Your task to perform on an android device: move a message to another label in the gmail app Image 0: 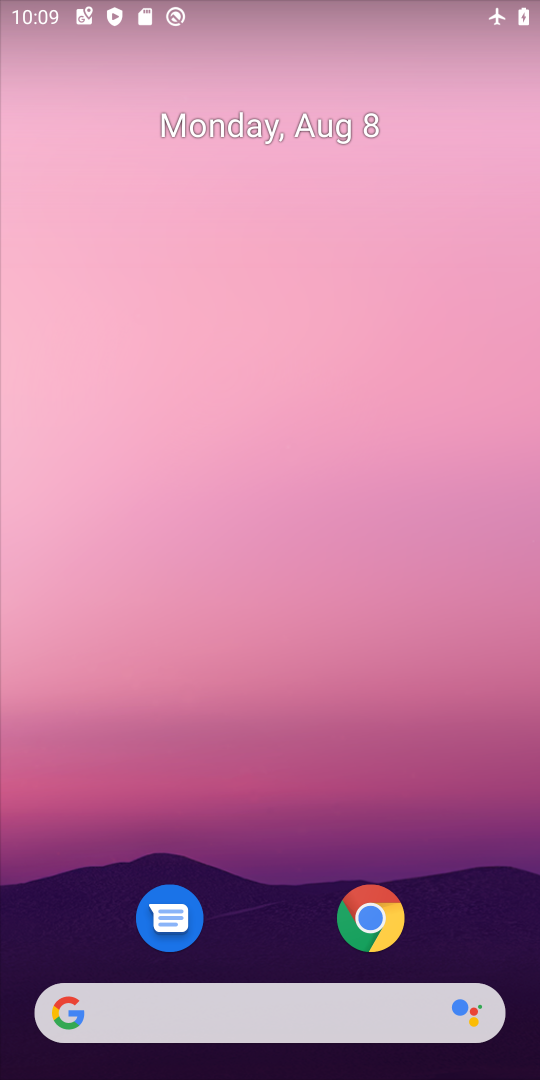
Step 0: drag from (274, 969) to (259, 761)
Your task to perform on an android device: move a message to another label in the gmail app Image 1: 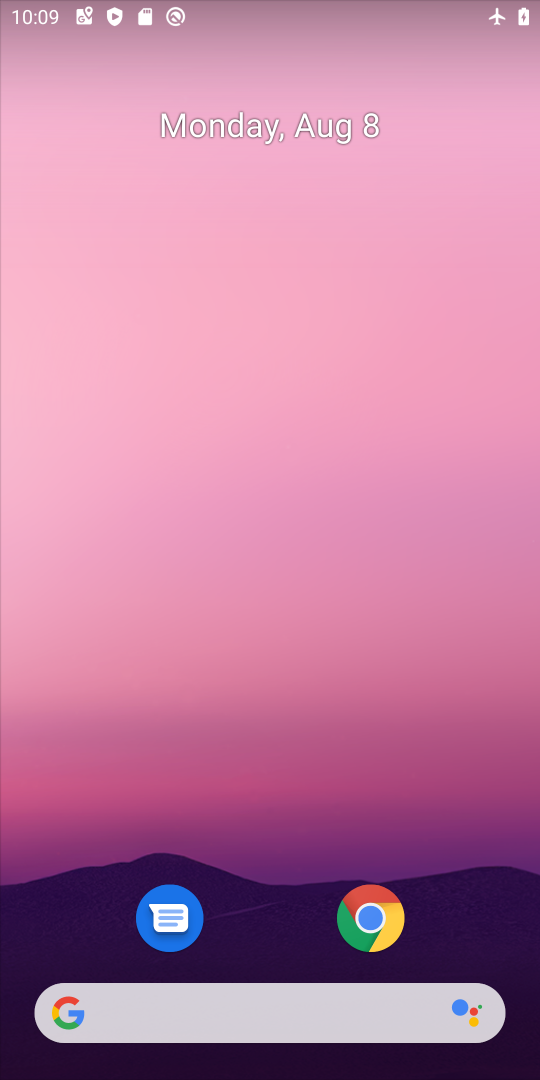
Step 1: drag from (260, 971) to (203, 193)
Your task to perform on an android device: move a message to another label in the gmail app Image 2: 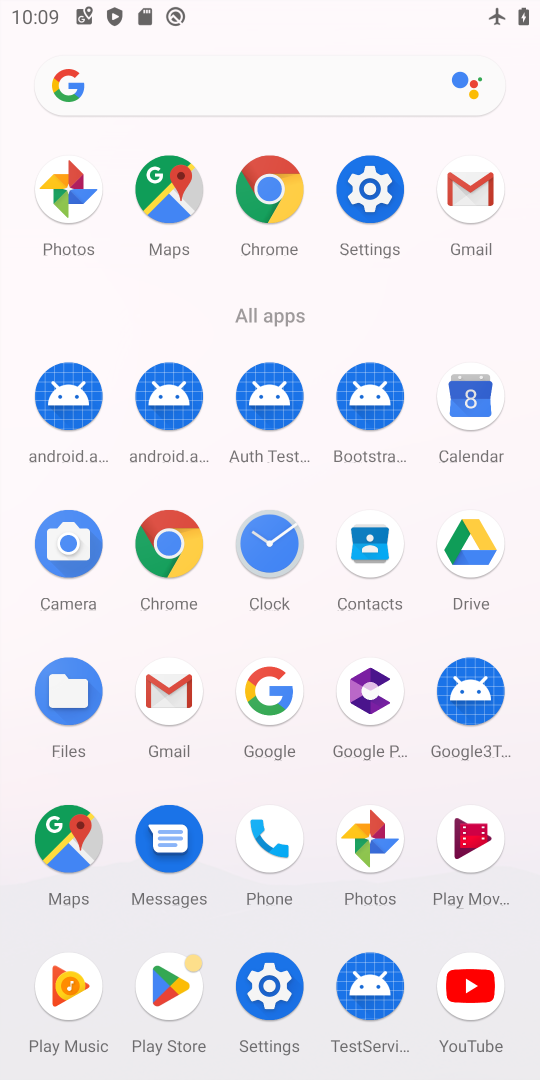
Step 2: click (180, 709)
Your task to perform on an android device: move a message to another label in the gmail app Image 3: 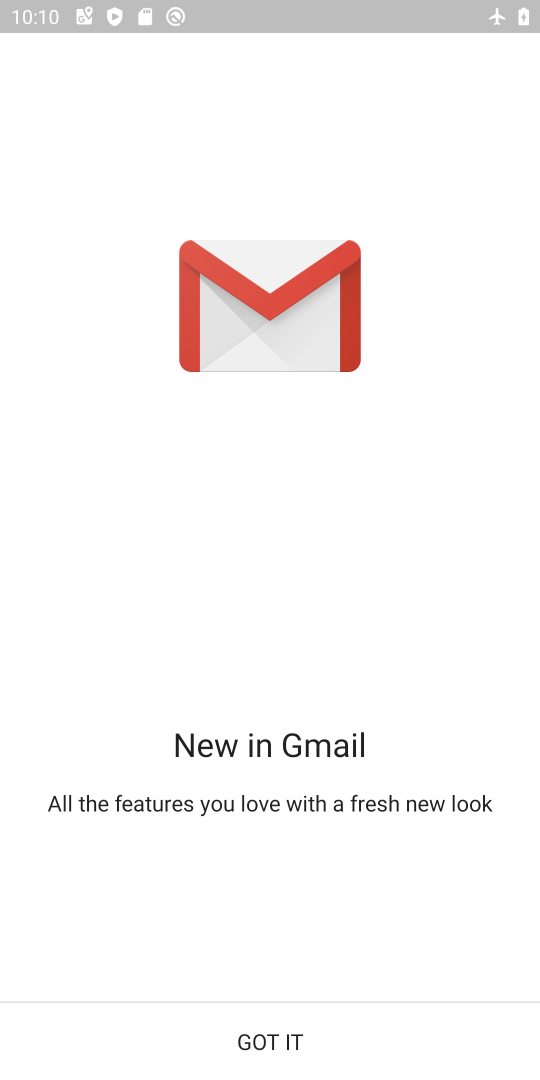
Step 3: click (249, 1010)
Your task to perform on an android device: move a message to another label in the gmail app Image 4: 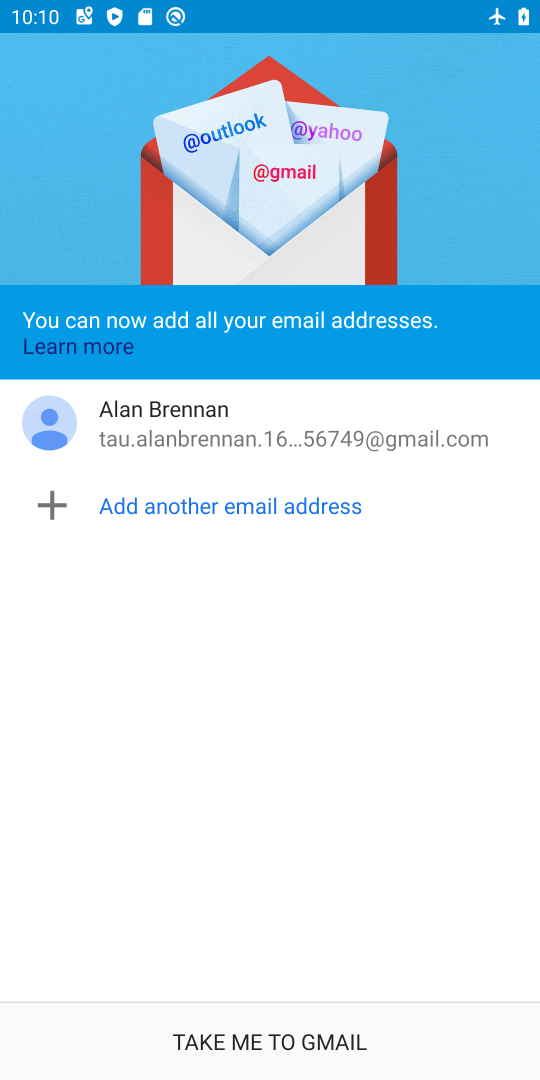
Step 4: click (179, 1060)
Your task to perform on an android device: move a message to another label in the gmail app Image 5: 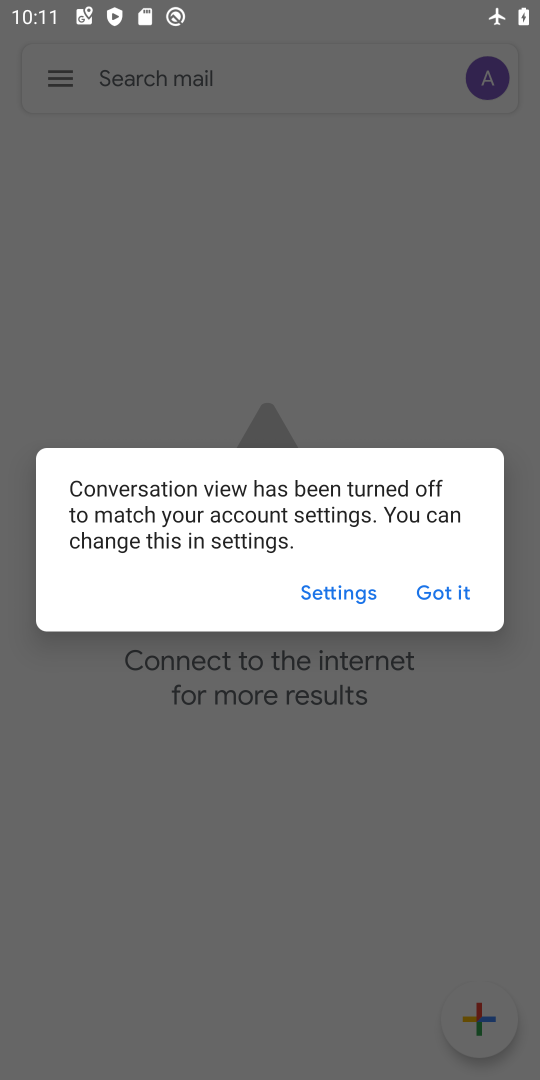
Step 5: click (441, 589)
Your task to perform on an android device: move a message to another label in the gmail app Image 6: 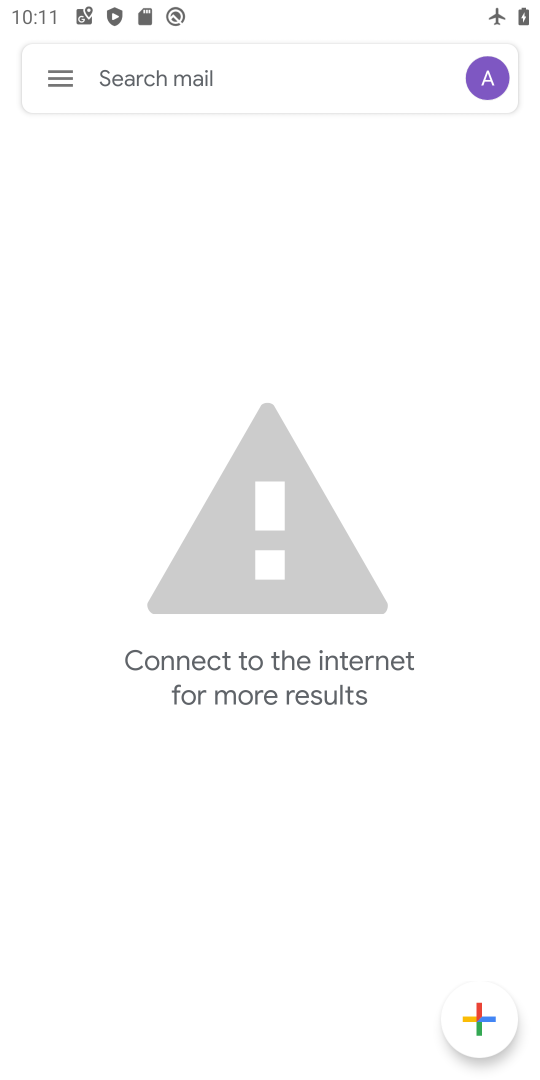
Step 6: task complete